Your task to perform on an android device: Open calendar and show me the second week of next month Image 0: 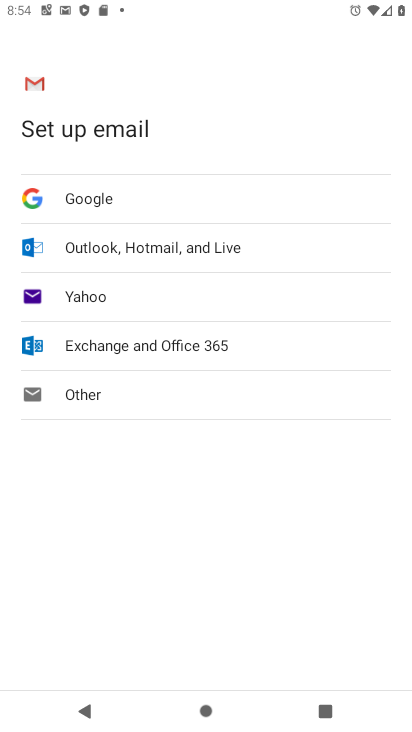
Step 0: press home button
Your task to perform on an android device: Open calendar and show me the second week of next month Image 1: 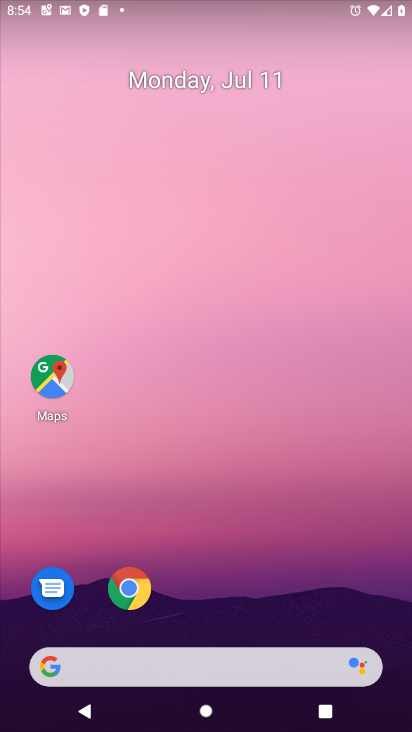
Step 1: drag from (198, 620) to (332, 172)
Your task to perform on an android device: Open calendar and show me the second week of next month Image 2: 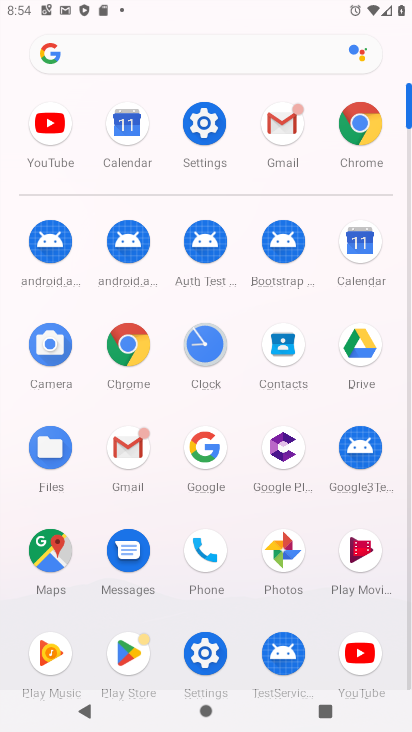
Step 2: click (360, 242)
Your task to perform on an android device: Open calendar and show me the second week of next month Image 3: 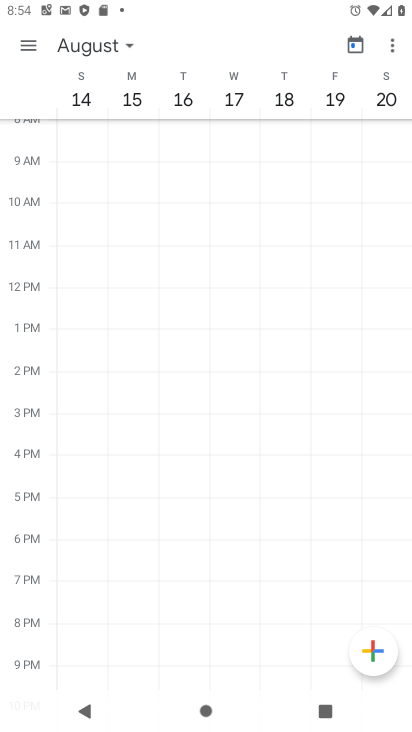
Step 3: click (97, 43)
Your task to perform on an android device: Open calendar and show me the second week of next month Image 4: 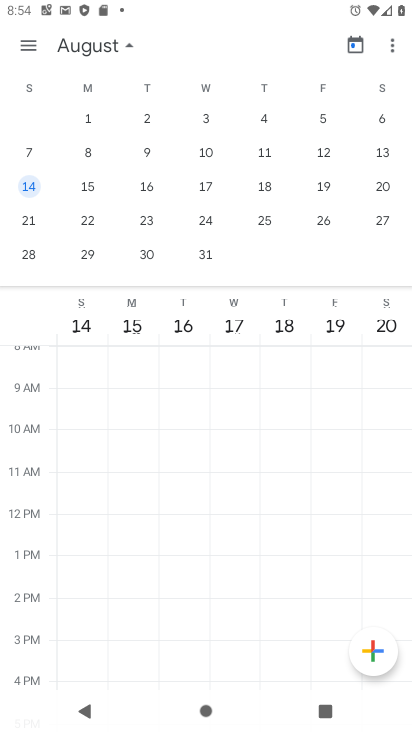
Step 4: click (23, 153)
Your task to perform on an android device: Open calendar and show me the second week of next month Image 5: 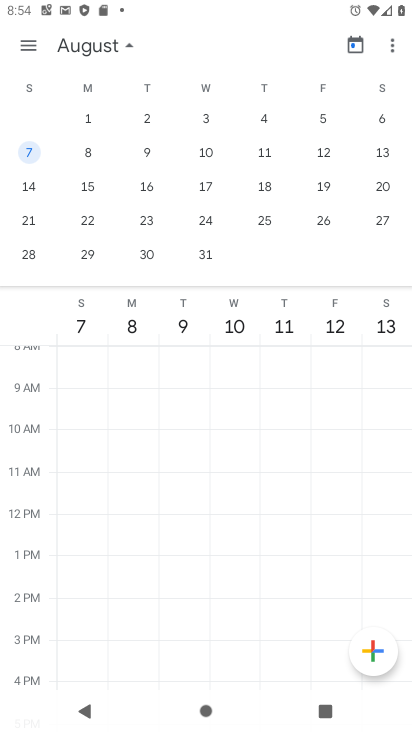
Step 5: click (33, 50)
Your task to perform on an android device: Open calendar and show me the second week of next month Image 6: 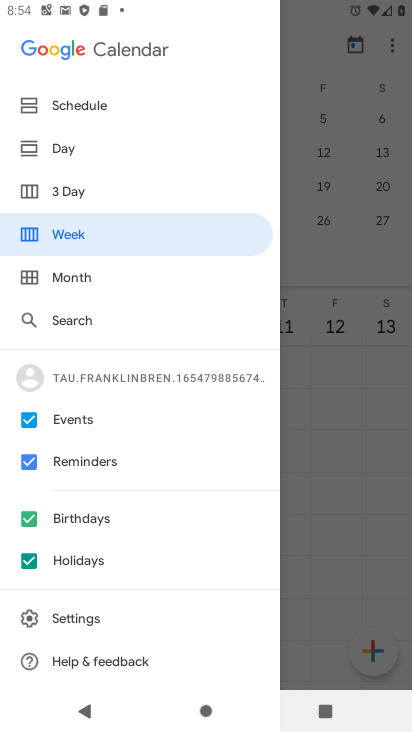
Step 6: click (75, 235)
Your task to perform on an android device: Open calendar and show me the second week of next month Image 7: 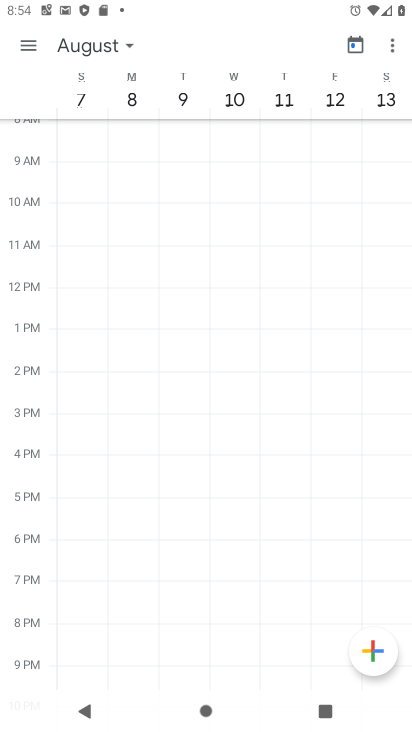
Step 7: task complete